Your task to perform on an android device: delete a single message in the gmail app Image 0: 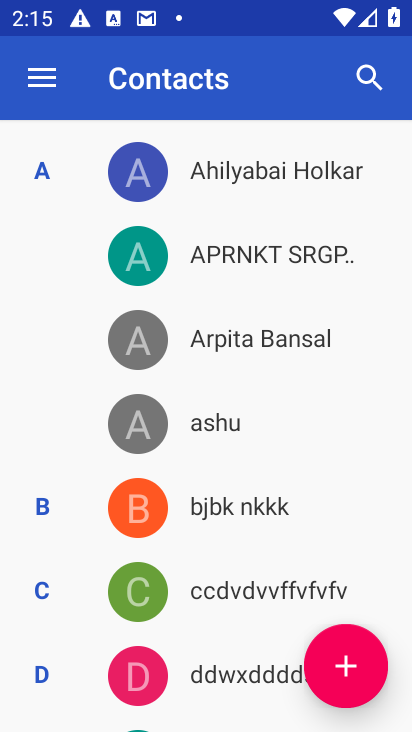
Step 0: press home button
Your task to perform on an android device: delete a single message in the gmail app Image 1: 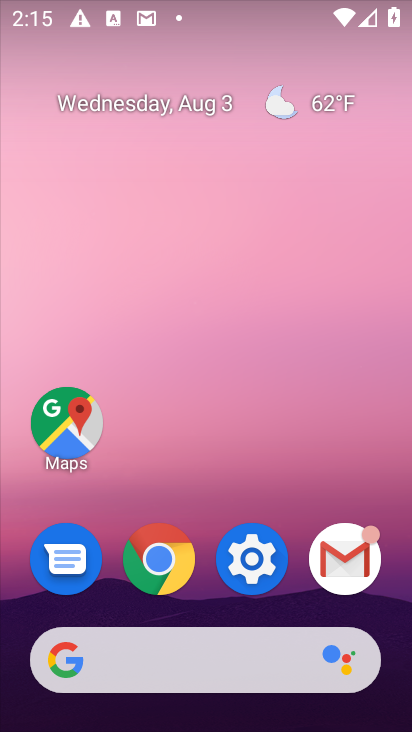
Step 1: drag from (291, 699) to (280, 228)
Your task to perform on an android device: delete a single message in the gmail app Image 2: 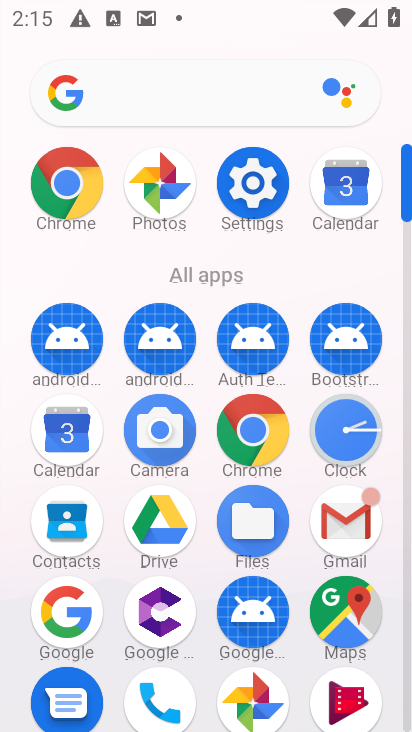
Step 2: click (356, 521)
Your task to perform on an android device: delete a single message in the gmail app Image 3: 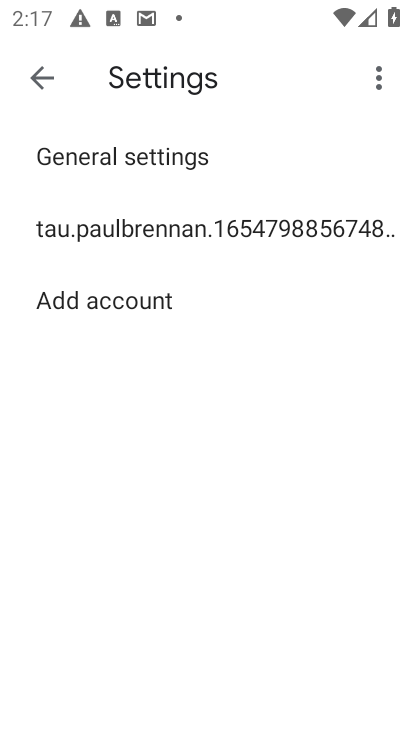
Step 3: click (30, 92)
Your task to perform on an android device: delete a single message in the gmail app Image 4: 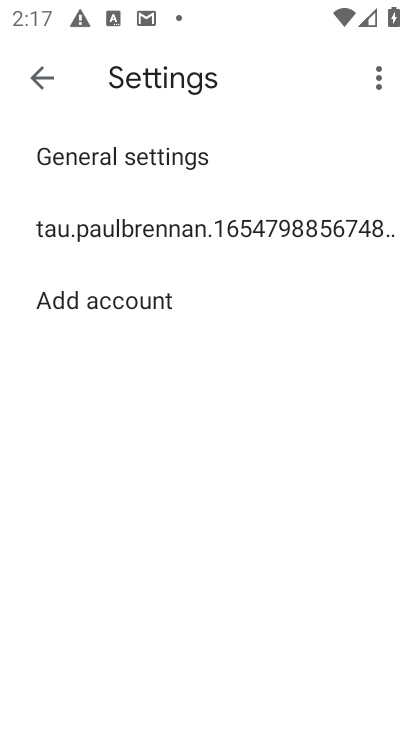
Step 4: click (19, 82)
Your task to perform on an android device: delete a single message in the gmail app Image 5: 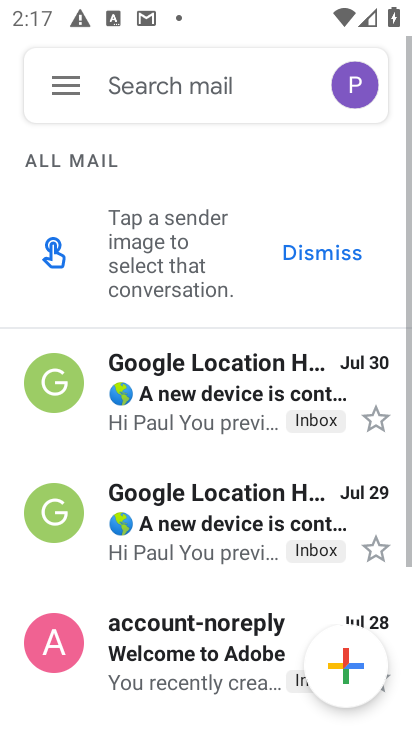
Step 5: click (330, 234)
Your task to perform on an android device: delete a single message in the gmail app Image 6: 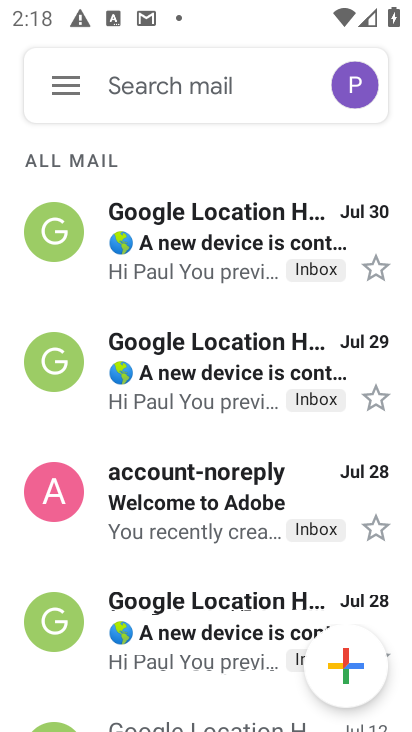
Step 6: click (224, 241)
Your task to perform on an android device: delete a single message in the gmail app Image 7: 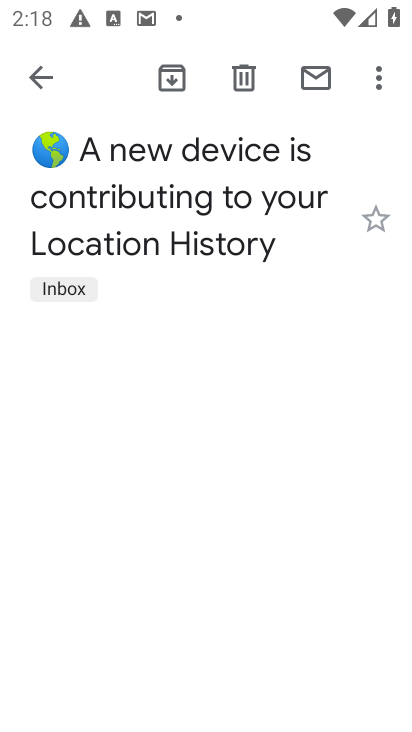
Step 7: click (246, 84)
Your task to perform on an android device: delete a single message in the gmail app Image 8: 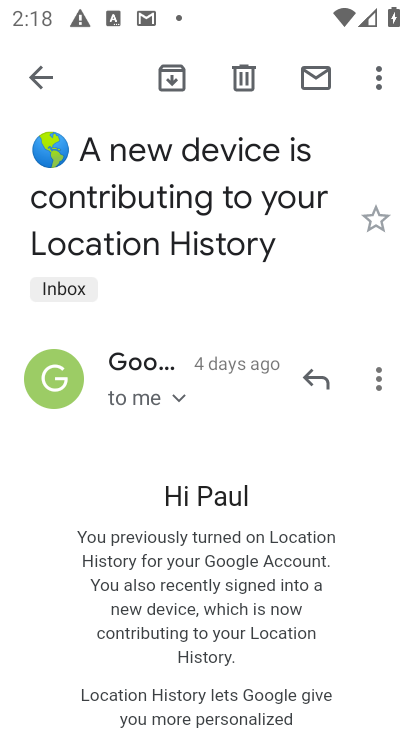
Step 8: click (243, 66)
Your task to perform on an android device: delete a single message in the gmail app Image 9: 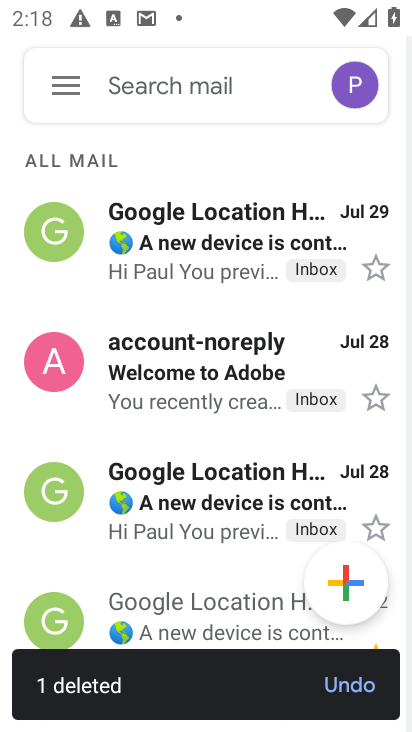
Step 9: task complete